Your task to perform on an android device: turn notification dots off Image 0: 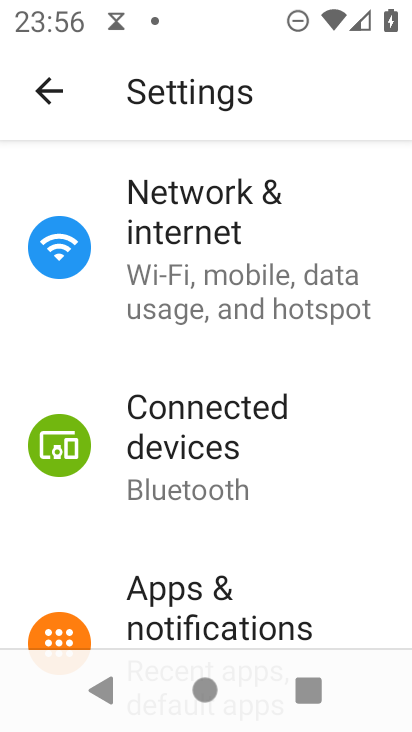
Step 0: click (233, 622)
Your task to perform on an android device: turn notification dots off Image 1: 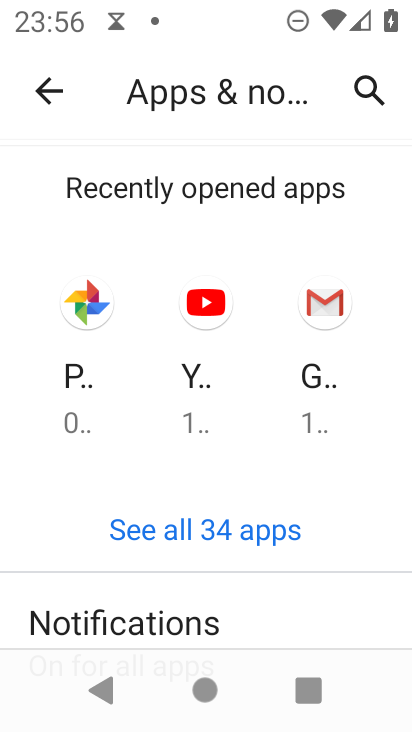
Step 1: drag from (222, 622) to (274, 166)
Your task to perform on an android device: turn notification dots off Image 2: 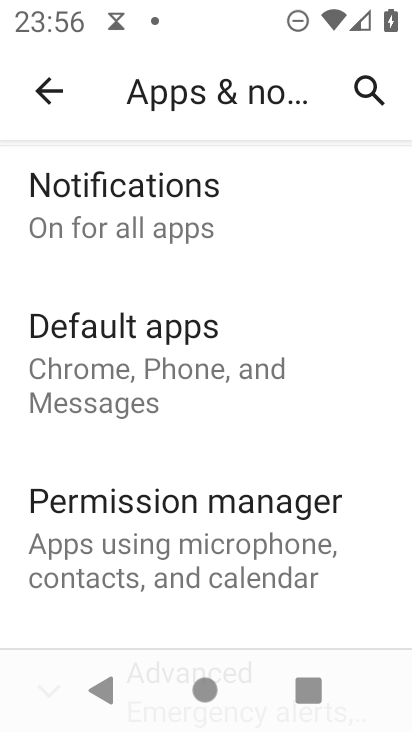
Step 2: click (123, 212)
Your task to perform on an android device: turn notification dots off Image 3: 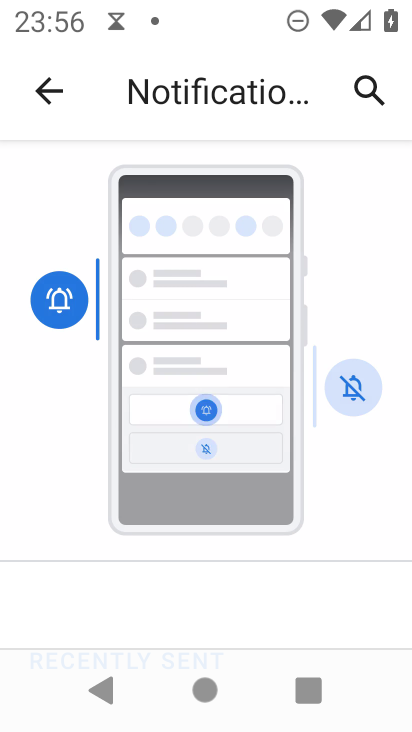
Step 3: drag from (183, 622) to (188, 250)
Your task to perform on an android device: turn notification dots off Image 4: 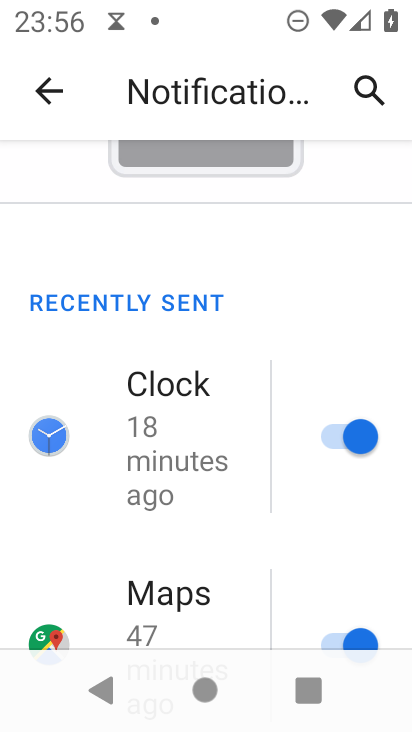
Step 4: drag from (245, 636) to (255, 215)
Your task to perform on an android device: turn notification dots off Image 5: 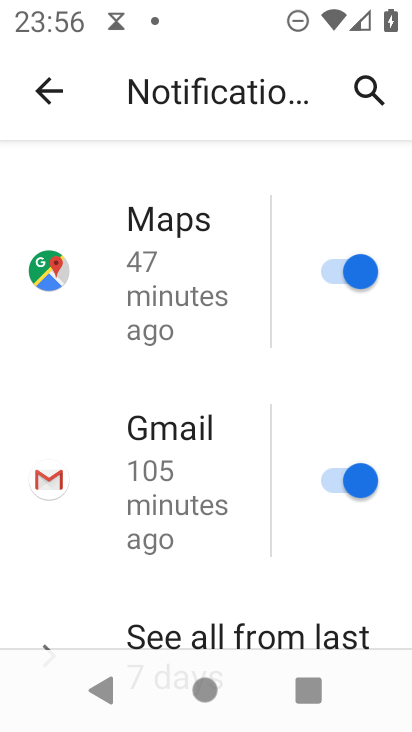
Step 5: drag from (270, 621) to (272, 221)
Your task to perform on an android device: turn notification dots off Image 6: 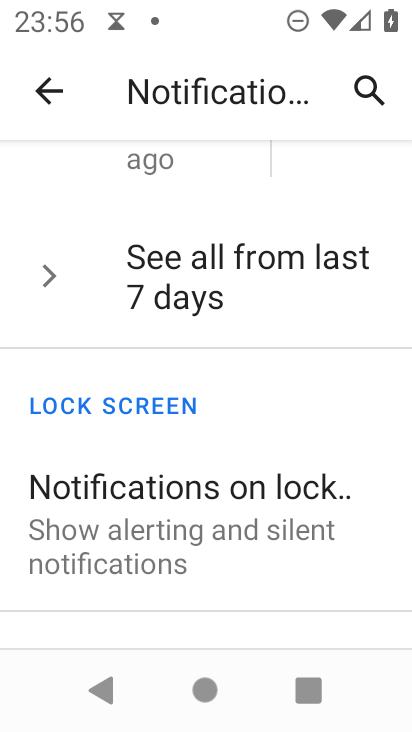
Step 6: drag from (231, 626) to (225, 225)
Your task to perform on an android device: turn notification dots off Image 7: 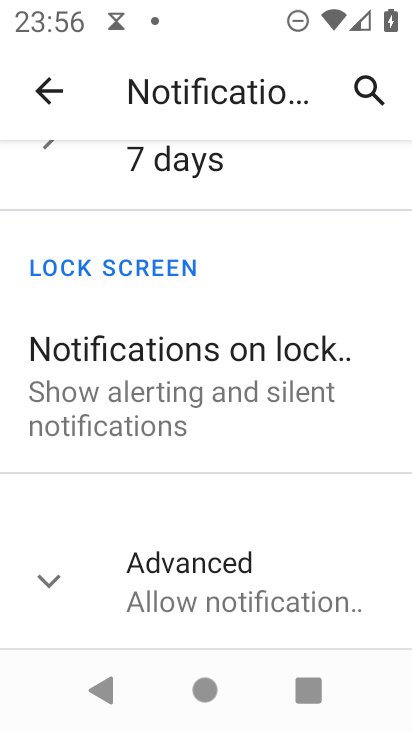
Step 7: click (193, 584)
Your task to perform on an android device: turn notification dots off Image 8: 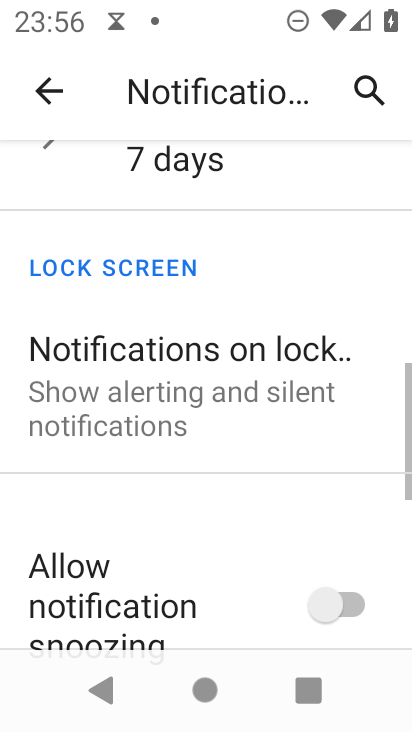
Step 8: drag from (192, 625) to (193, 229)
Your task to perform on an android device: turn notification dots off Image 9: 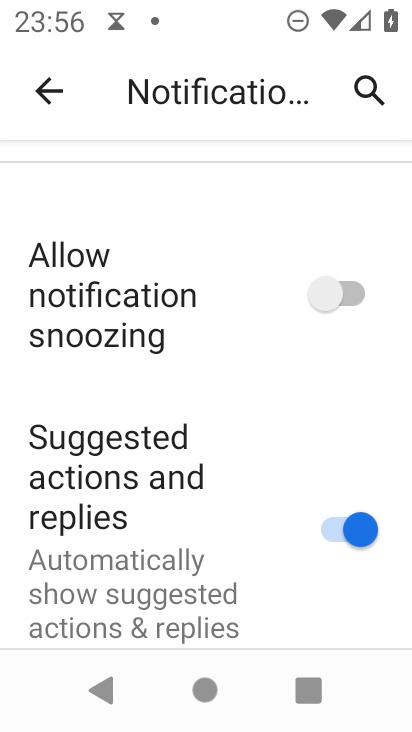
Step 9: drag from (272, 624) to (255, 212)
Your task to perform on an android device: turn notification dots off Image 10: 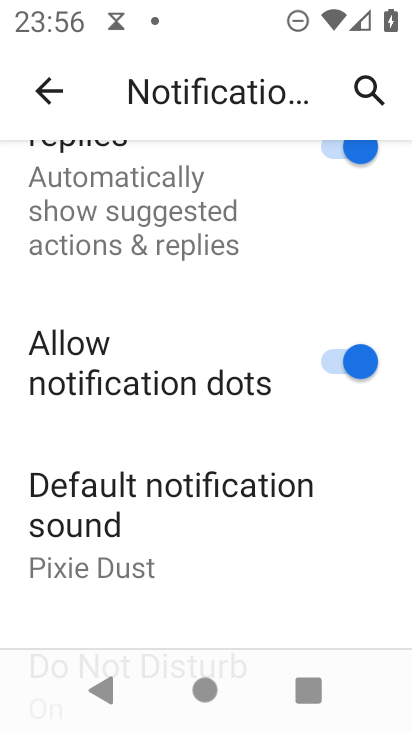
Step 10: click (336, 363)
Your task to perform on an android device: turn notification dots off Image 11: 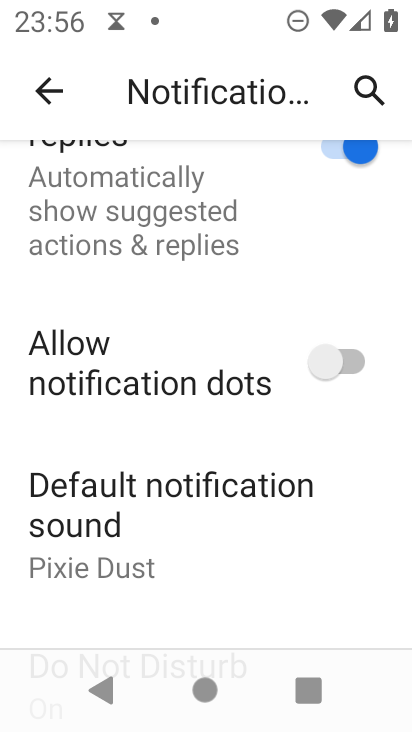
Step 11: task complete